Your task to perform on an android device: Play the last video I watched on Youtube Image 0: 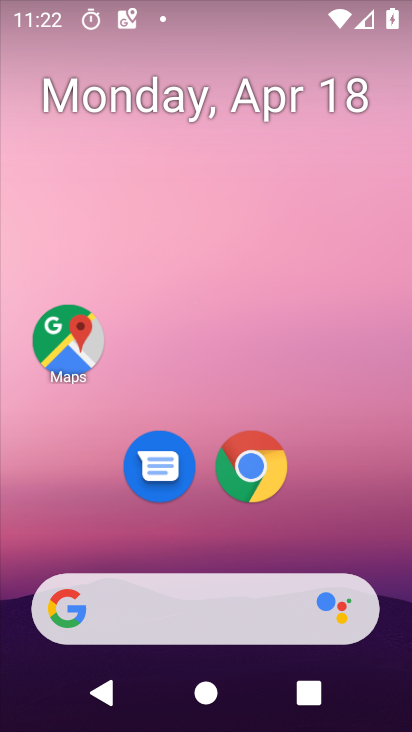
Step 0: drag from (256, 378) to (238, 78)
Your task to perform on an android device: Play the last video I watched on Youtube Image 1: 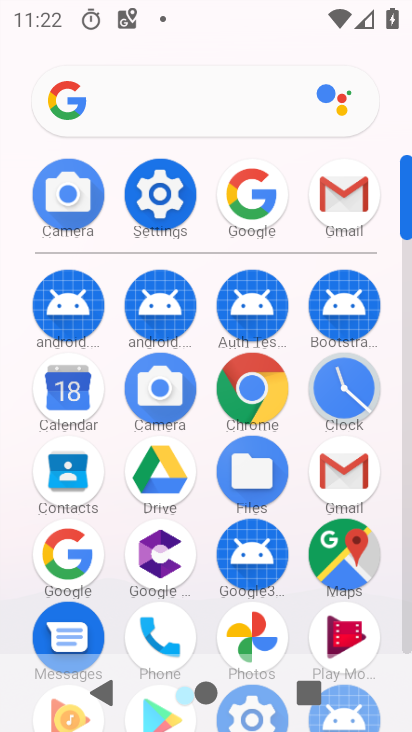
Step 1: drag from (286, 515) to (263, 163)
Your task to perform on an android device: Play the last video I watched on Youtube Image 2: 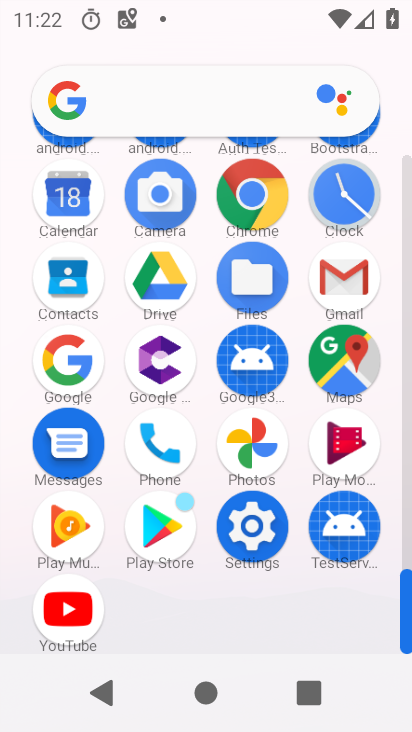
Step 2: click (55, 630)
Your task to perform on an android device: Play the last video I watched on Youtube Image 3: 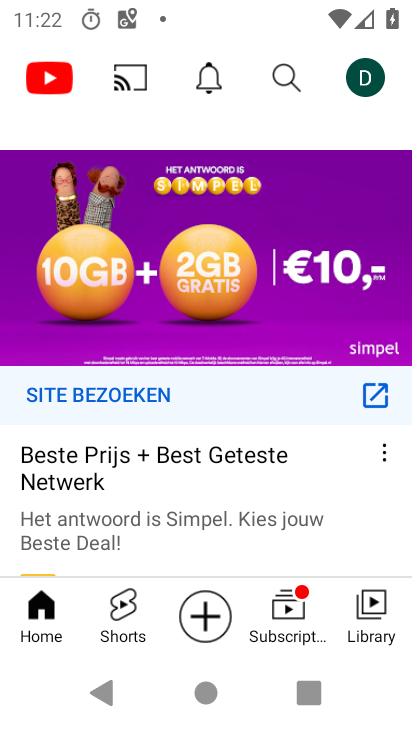
Step 3: click (380, 632)
Your task to perform on an android device: Play the last video I watched on Youtube Image 4: 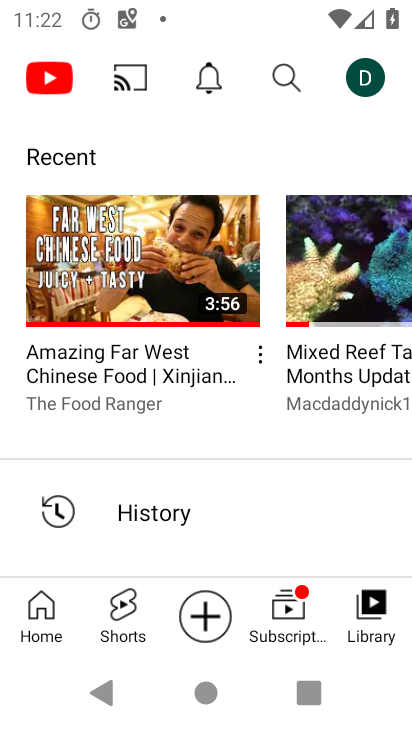
Step 4: click (181, 248)
Your task to perform on an android device: Play the last video I watched on Youtube Image 5: 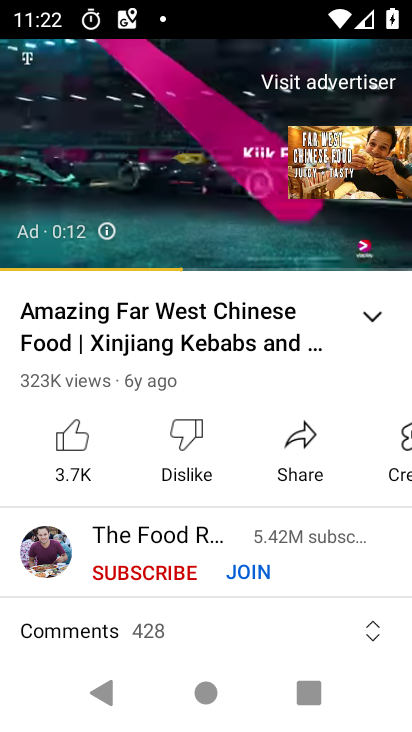
Step 5: task complete